Your task to perform on an android device: Go to calendar. Show me events next week Image 0: 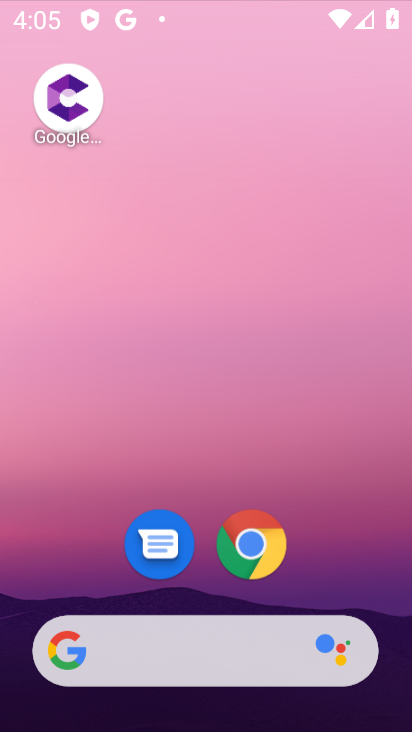
Step 0: click (402, 288)
Your task to perform on an android device: Go to calendar. Show me events next week Image 1: 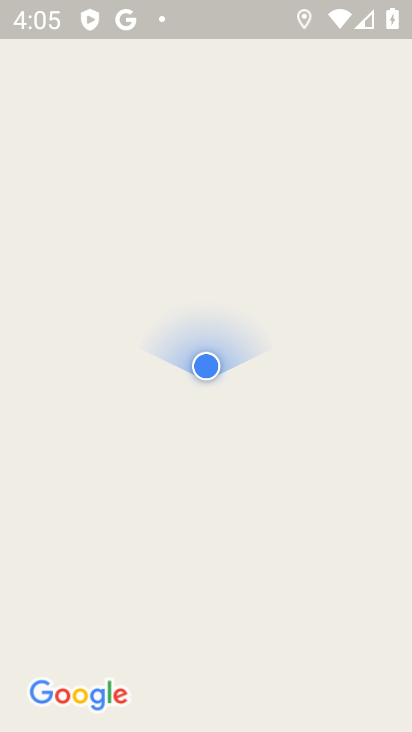
Step 1: press home button
Your task to perform on an android device: Go to calendar. Show me events next week Image 2: 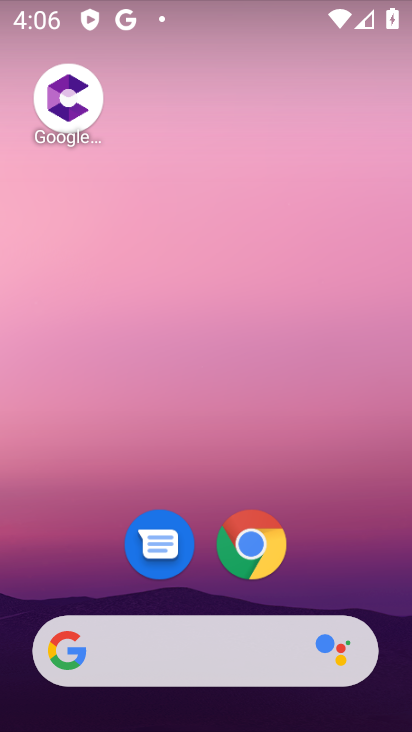
Step 2: drag from (381, 568) to (384, 213)
Your task to perform on an android device: Go to calendar. Show me events next week Image 3: 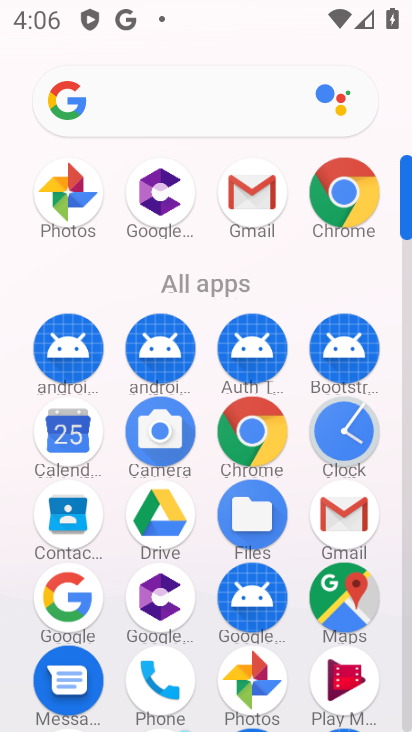
Step 3: click (83, 445)
Your task to perform on an android device: Go to calendar. Show me events next week Image 4: 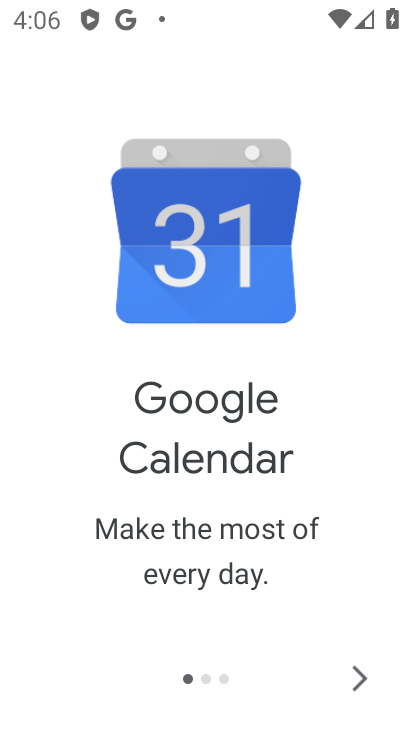
Step 4: click (362, 678)
Your task to perform on an android device: Go to calendar. Show me events next week Image 5: 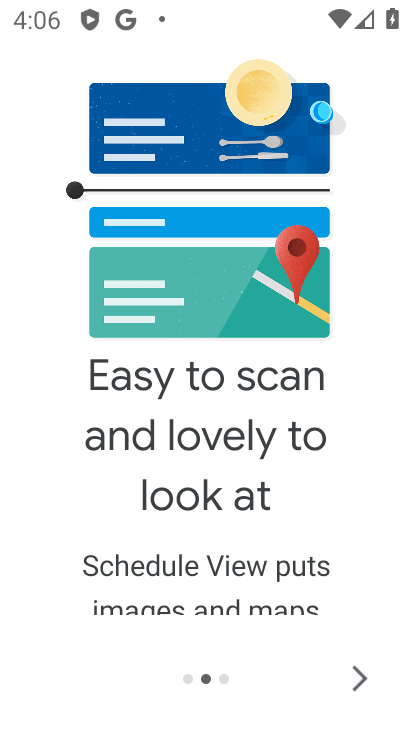
Step 5: click (362, 678)
Your task to perform on an android device: Go to calendar. Show me events next week Image 6: 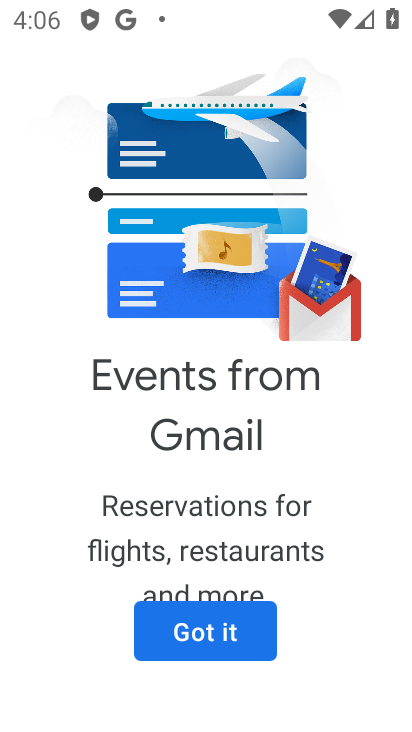
Step 6: click (235, 637)
Your task to perform on an android device: Go to calendar. Show me events next week Image 7: 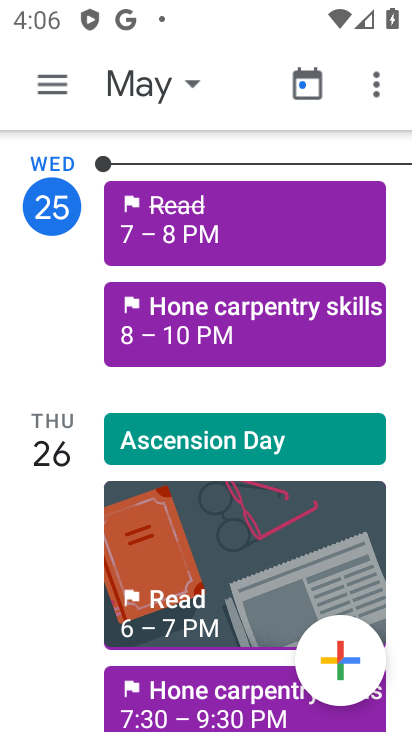
Step 7: drag from (214, 629) to (249, 467)
Your task to perform on an android device: Go to calendar. Show me events next week Image 8: 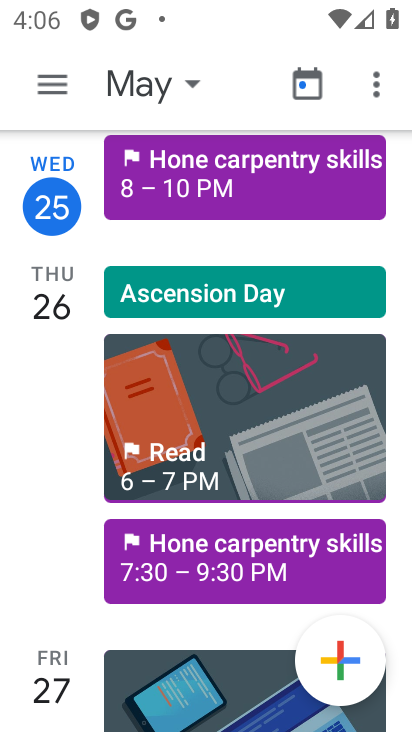
Step 8: click (200, 75)
Your task to perform on an android device: Go to calendar. Show me events next week Image 9: 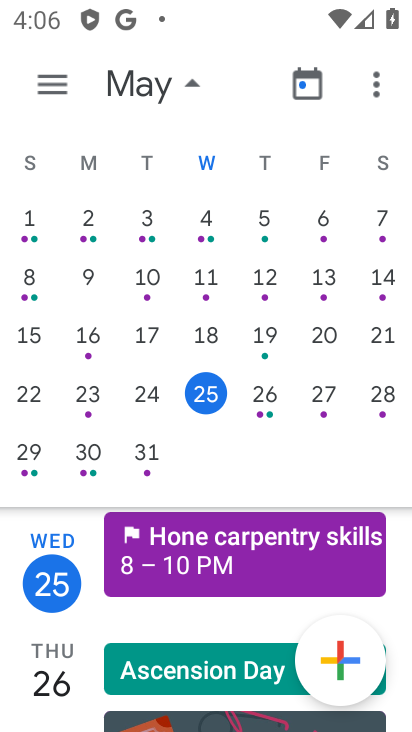
Step 9: click (92, 462)
Your task to perform on an android device: Go to calendar. Show me events next week Image 10: 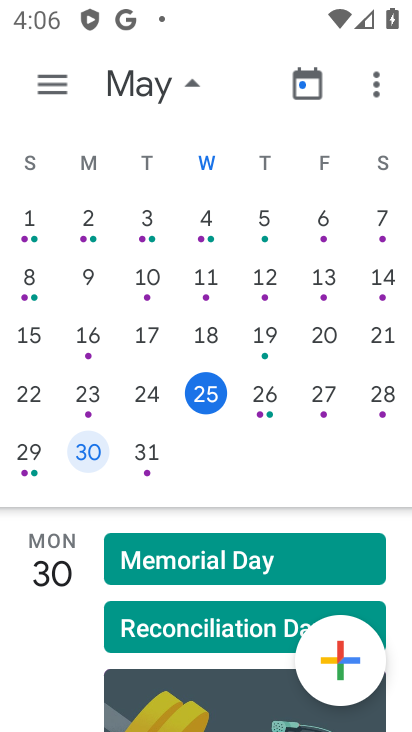
Step 10: drag from (206, 619) to (254, 182)
Your task to perform on an android device: Go to calendar. Show me events next week Image 11: 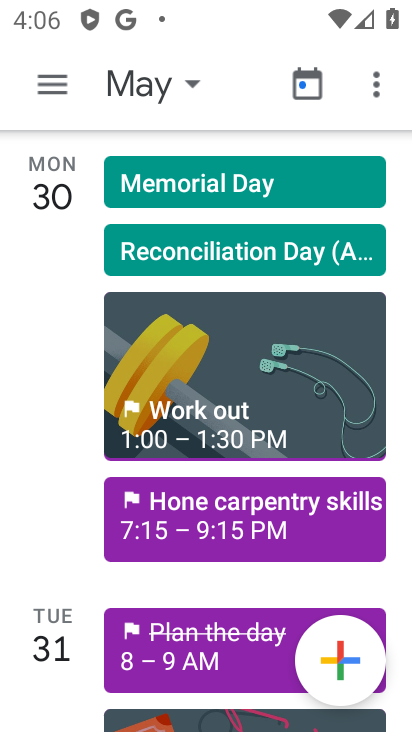
Step 11: click (237, 391)
Your task to perform on an android device: Go to calendar. Show me events next week Image 12: 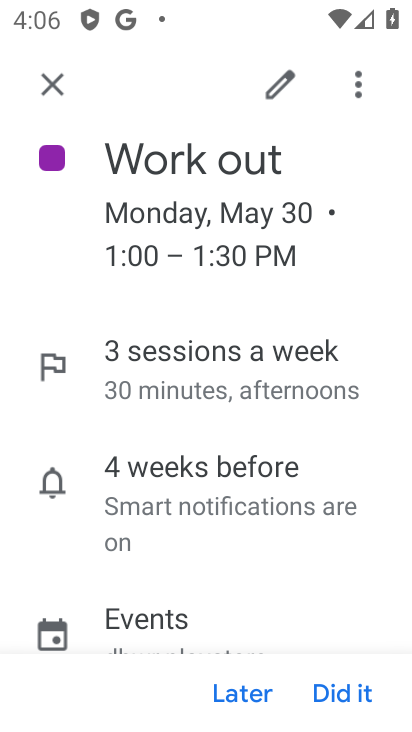
Step 12: task complete